Your task to perform on an android device: Go to Reddit.com Image 0: 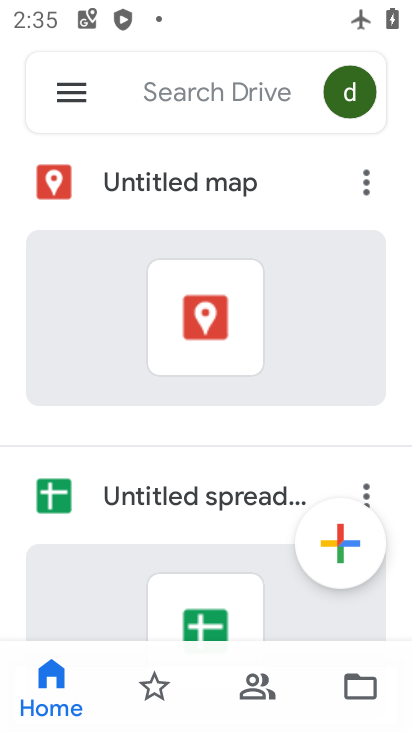
Step 0: press home button
Your task to perform on an android device: Go to Reddit.com Image 1: 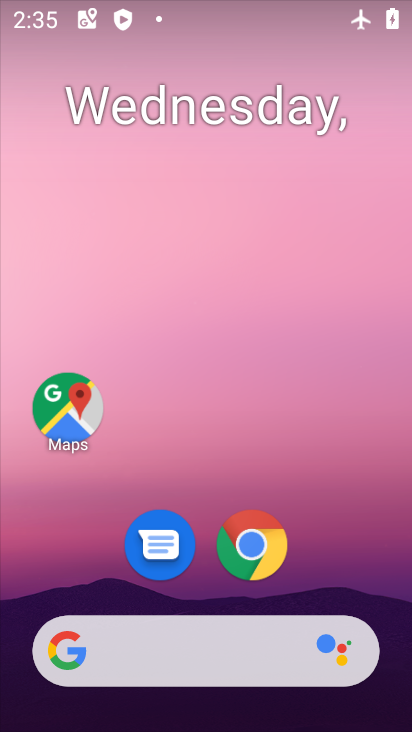
Step 1: click (250, 538)
Your task to perform on an android device: Go to Reddit.com Image 2: 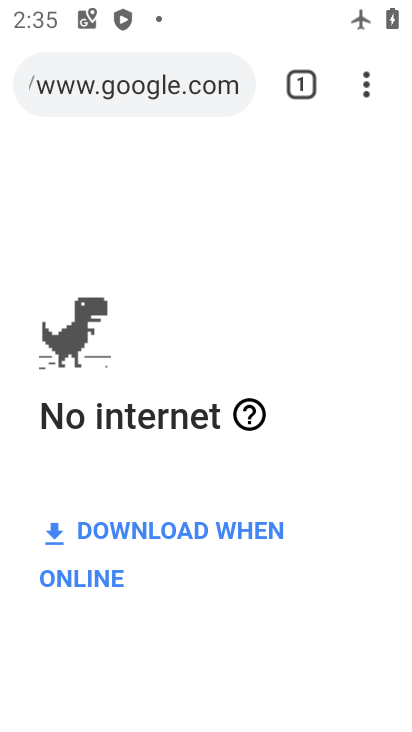
Step 2: click (158, 82)
Your task to perform on an android device: Go to Reddit.com Image 3: 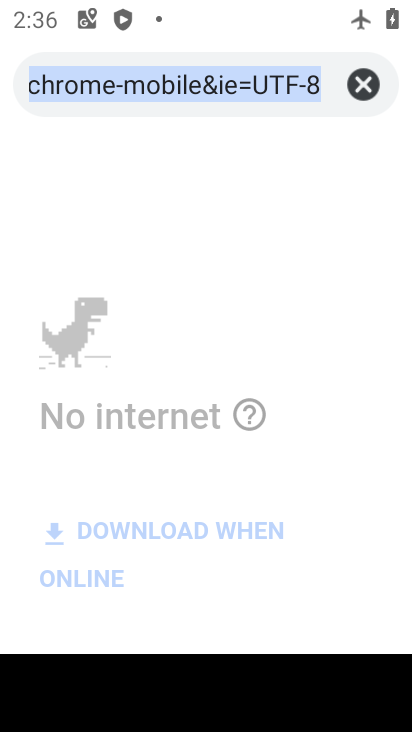
Step 3: type "reddit.com"
Your task to perform on an android device: Go to Reddit.com Image 4: 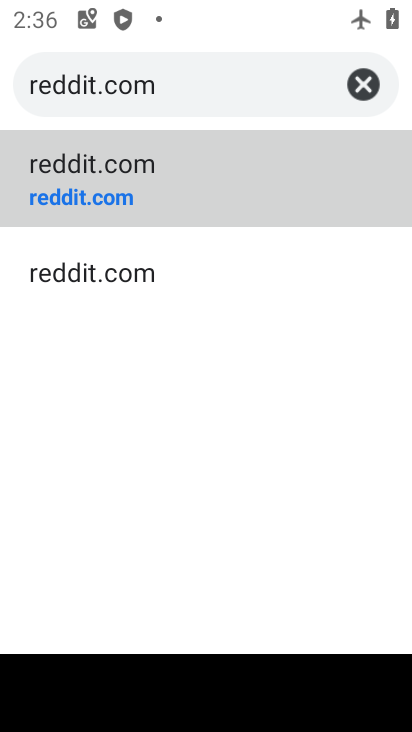
Step 4: click (92, 202)
Your task to perform on an android device: Go to Reddit.com Image 5: 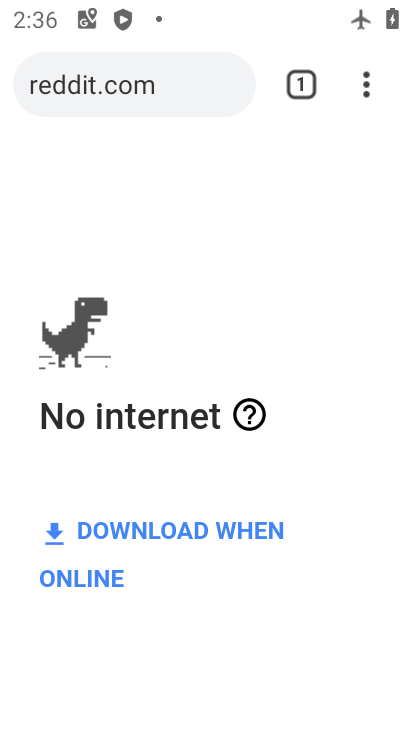
Step 5: task complete